Your task to perform on an android device: Play the last video I watched on Youtube Image 0: 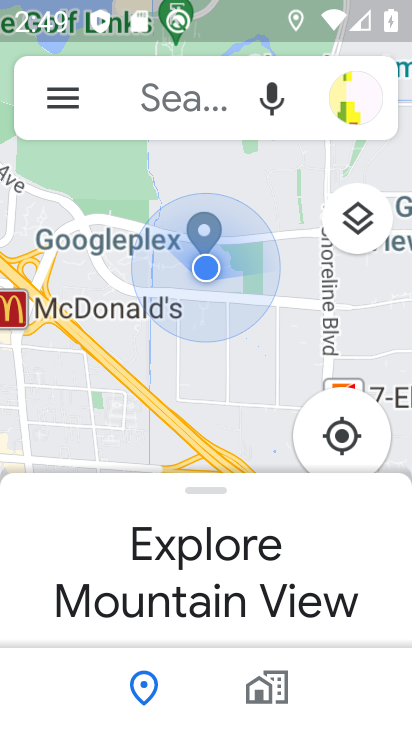
Step 0: press home button
Your task to perform on an android device: Play the last video I watched on Youtube Image 1: 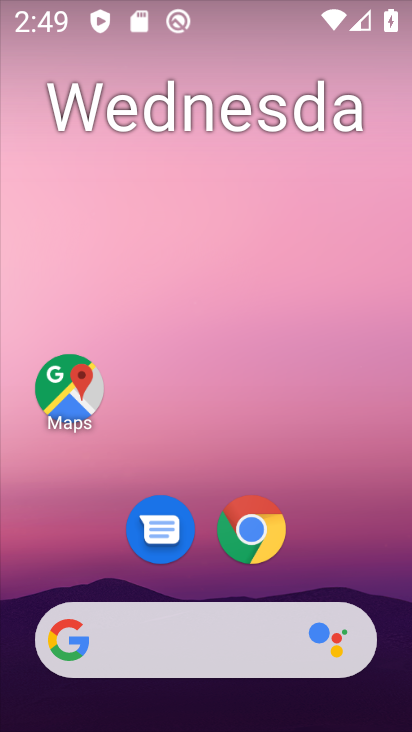
Step 1: drag from (319, 507) to (326, 86)
Your task to perform on an android device: Play the last video I watched on Youtube Image 2: 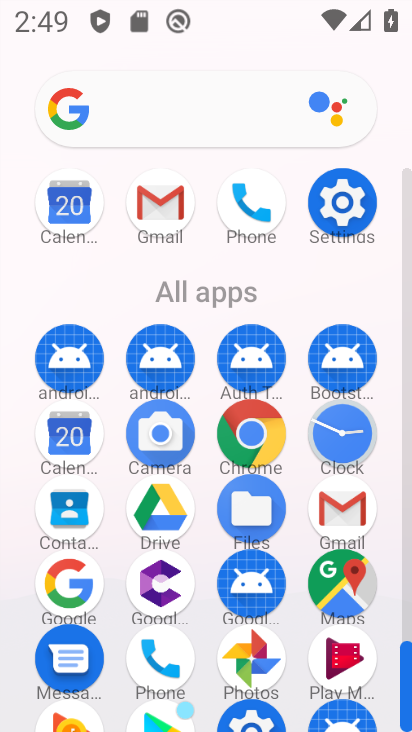
Step 2: drag from (193, 548) to (269, 338)
Your task to perform on an android device: Play the last video I watched on Youtube Image 3: 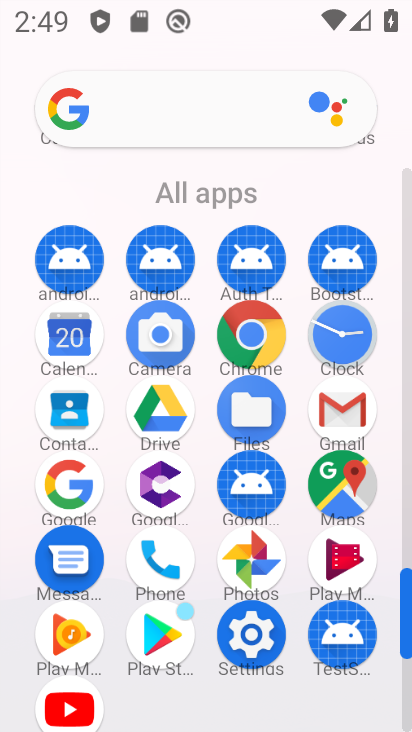
Step 3: click (65, 707)
Your task to perform on an android device: Play the last video I watched on Youtube Image 4: 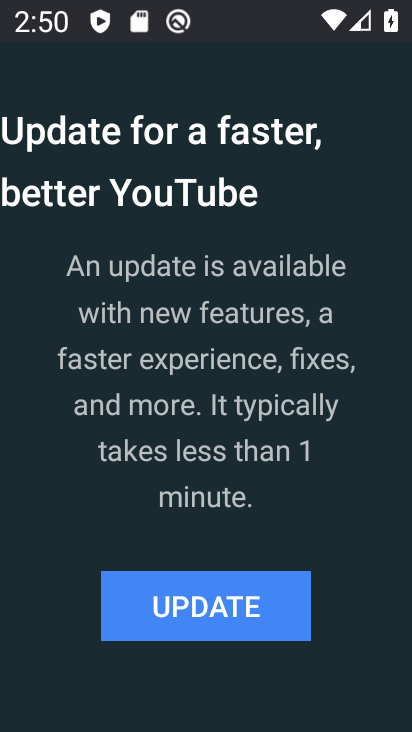
Step 4: click (227, 612)
Your task to perform on an android device: Play the last video I watched on Youtube Image 5: 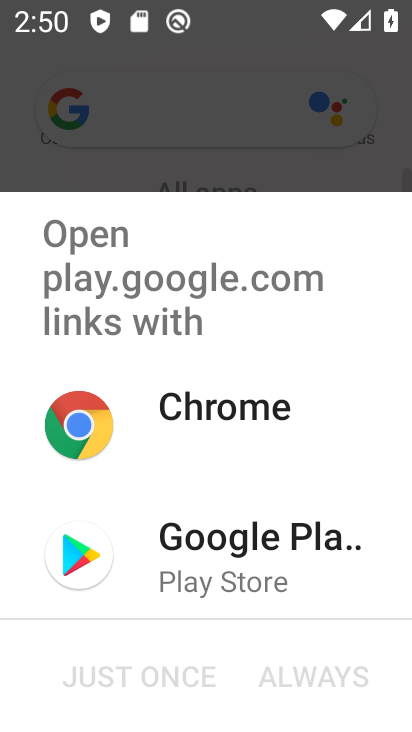
Step 5: click (192, 555)
Your task to perform on an android device: Play the last video I watched on Youtube Image 6: 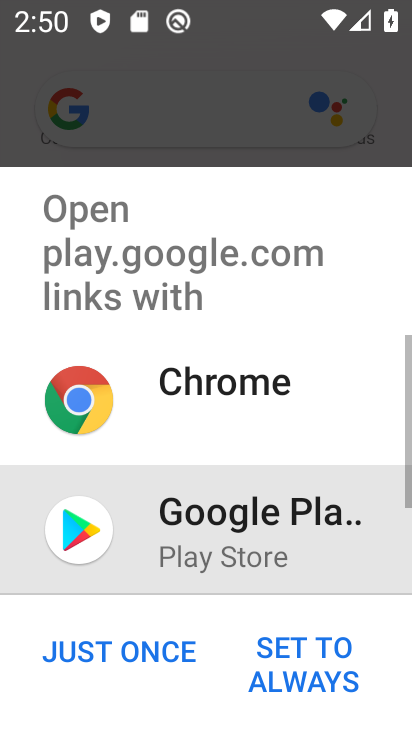
Step 6: click (144, 662)
Your task to perform on an android device: Play the last video I watched on Youtube Image 7: 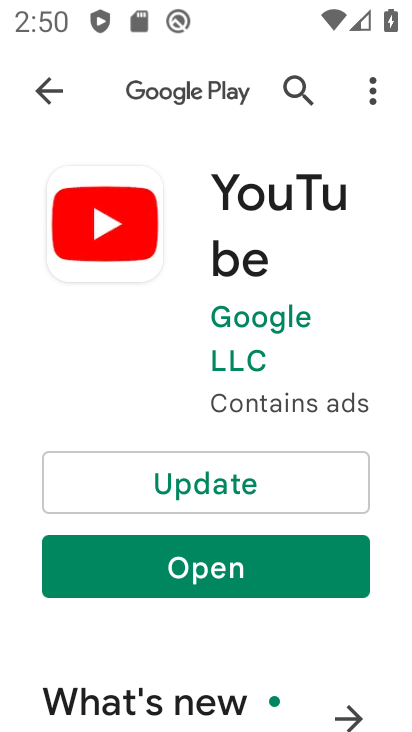
Step 7: click (255, 490)
Your task to perform on an android device: Play the last video I watched on Youtube Image 8: 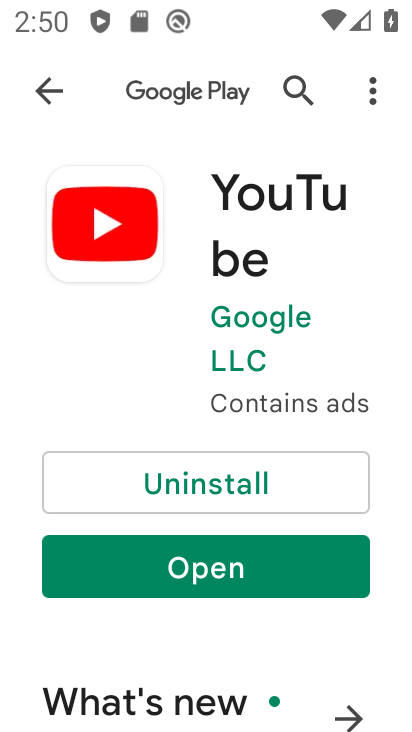
Step 8: click (153, 558)
Your task to perform on an android device: Play the last video I watched on Youtube Image 9: 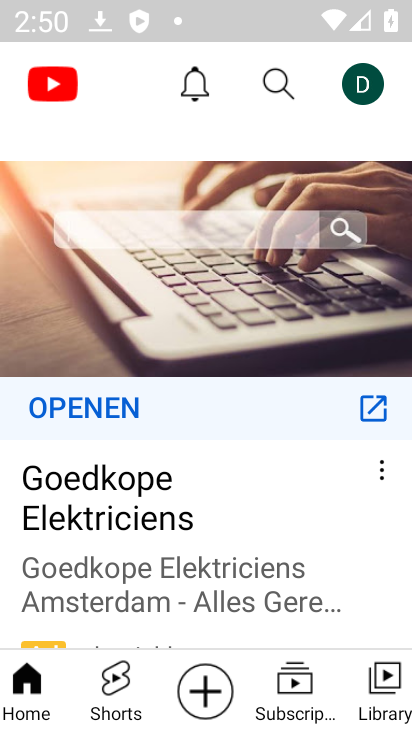
Step 9: click (383, 692)
Your task to perform on an android device: Play the last video I watched on Youtube Image 10: 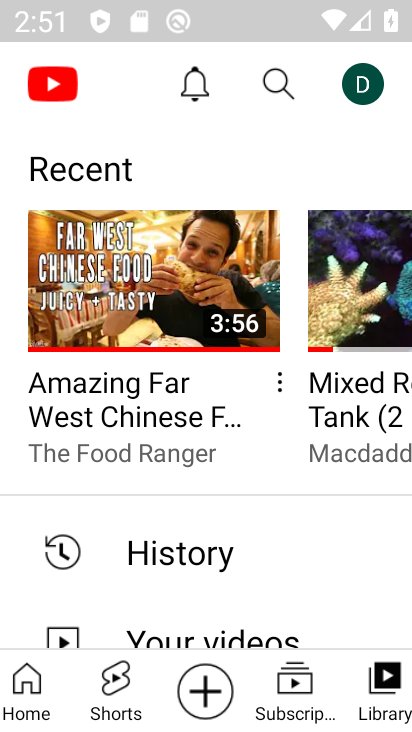
Step 10: click (118, 306)
Your task to perform on an android device: Play the last video I watched on Youtube Image 11: 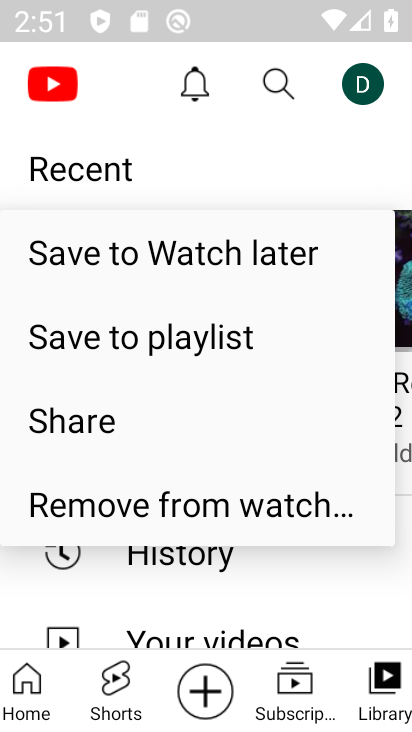
Step 11: click (142, 590)
Your task to perform on an android device: Play the last video I watched on Youtube Image 12: 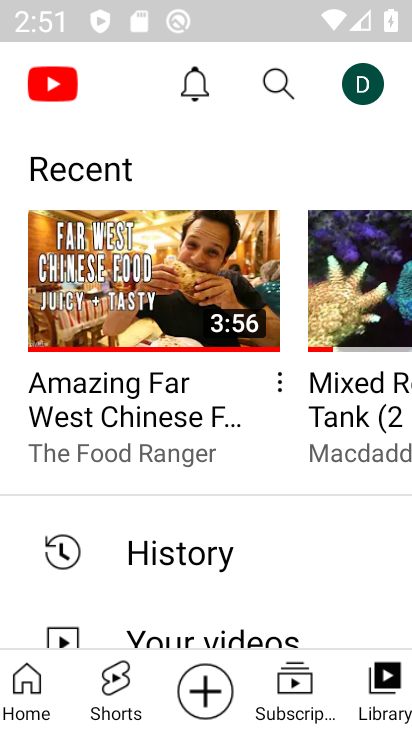
Step 12: click (95, 404)
Your task to perform on an android device: Play the last video I watched on Youtube Image 13: 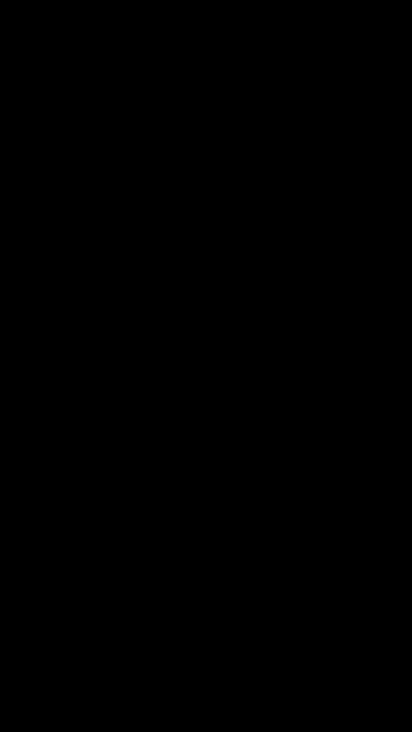
Step 13: task complete